Your task to perform on an android device: toggle translation in the chrome app Image 0: 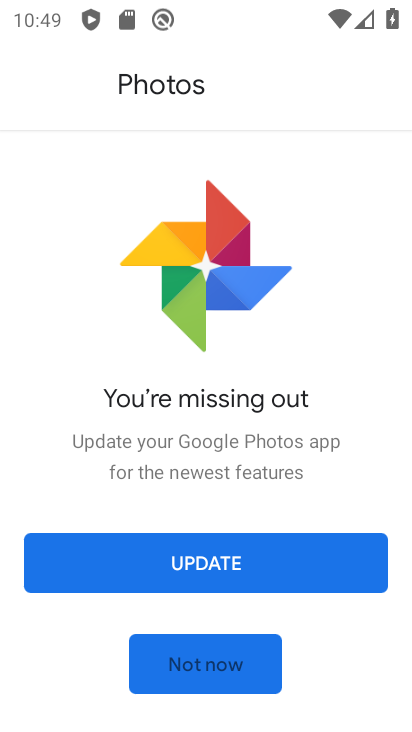
Step 0: press home button
Your task to perform on an android device: toggle translation in the chrome app Image 1: 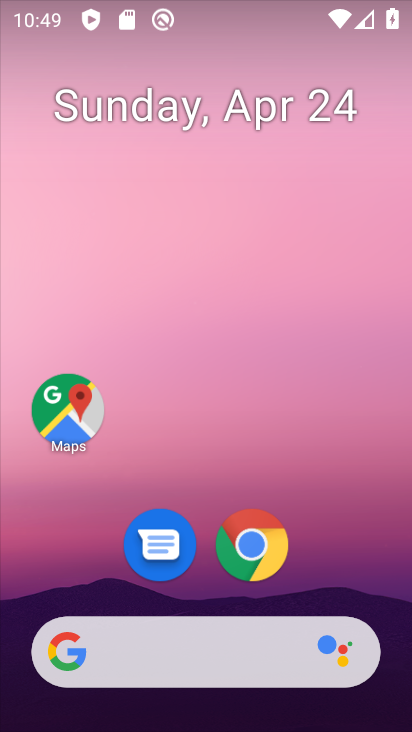
Step 1: drag from (290, 661) to (297, 188)
Your task to perform on an android device: toggle translation in the chrome app Image 2: 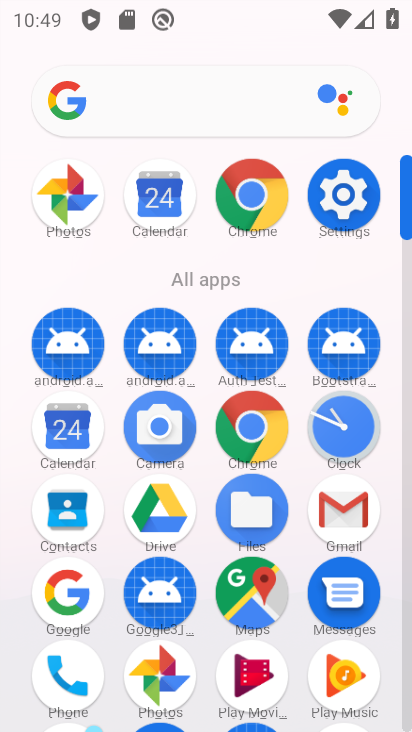
Step 2: click (273, 189)
Your task to perform on an android device: toggle translation in the chrome app Image 3: 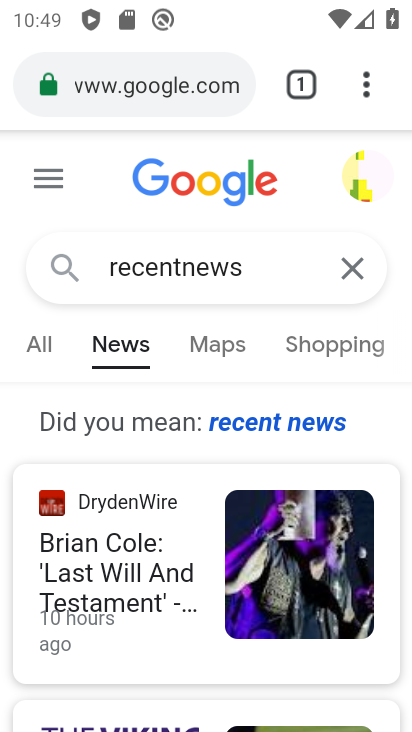
Step 3: click (372, 76)
Your task to perform on an android device: toggle translation in the chrome app Image 4: 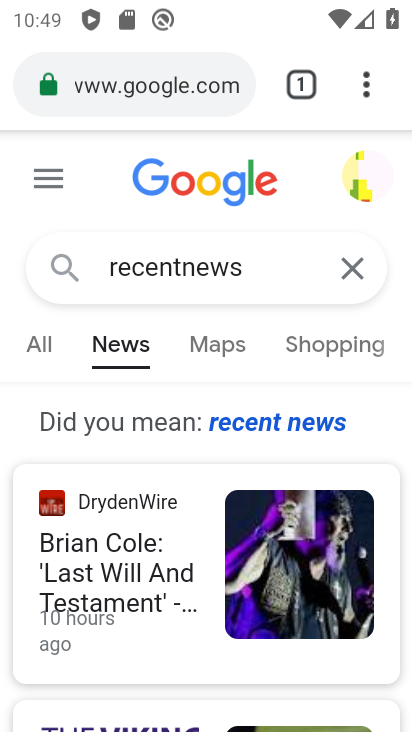
Step 4: click (368, 91)
Your task to perform on an android device: toggle translation in the chrome app Image 5: 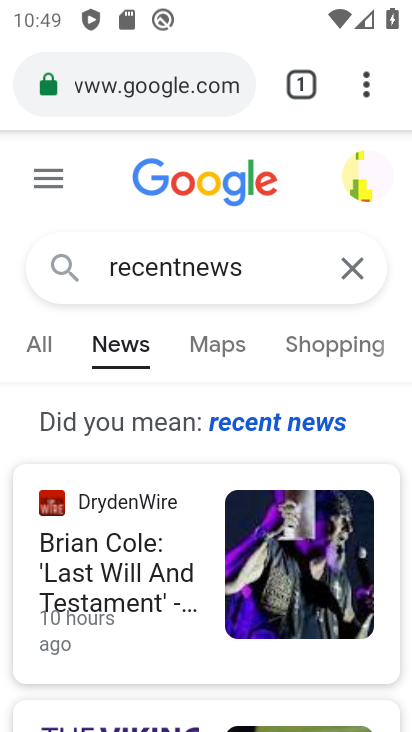
Step 5: click (358, 96)
Your task to perform on an android device: toggle translation in the chrome app Image 6: 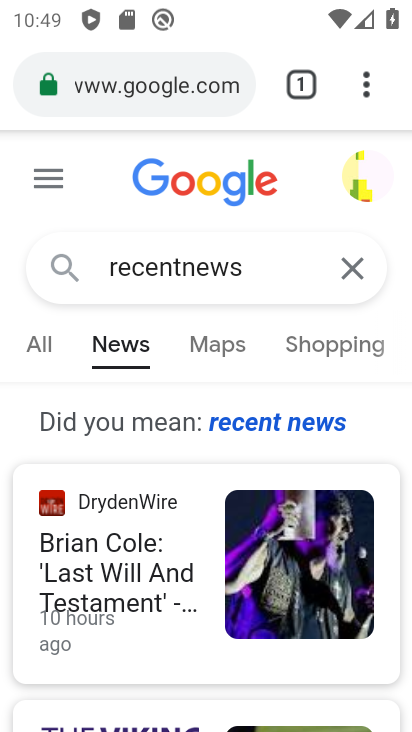
Step 6: click (359, 103)
Your task to perform on an android device: toggle translation in the chrome app Image 7: 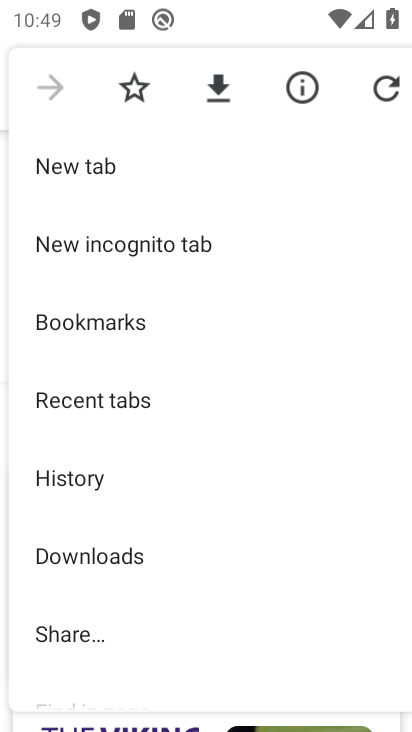
Step 7: drag from (91, 656) to (187, 394)
Your task to perform on an android device: toggle translation in the chrome app Image 8: 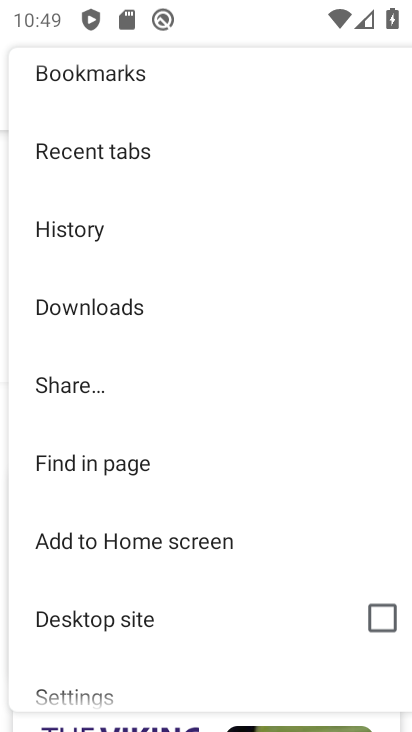
Step 8: click (83, 674)
Your task to perform on an android device: toggle translation in the chrome app Image 9: 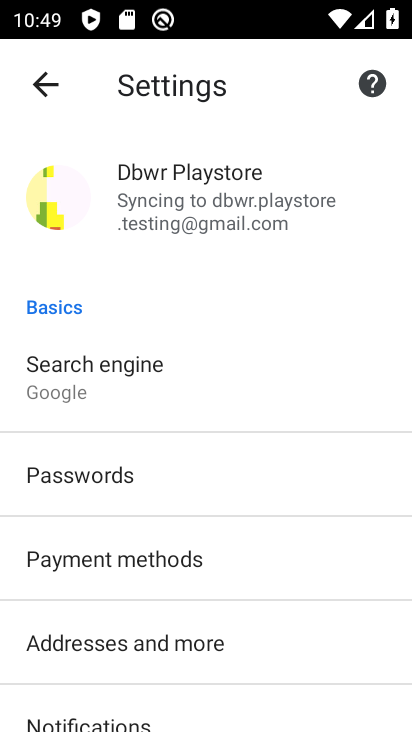
Step 9: drag from (195, 611) to (291, 138)
Your task to perform on an android device: toggle translation in the chrome app Image 10: 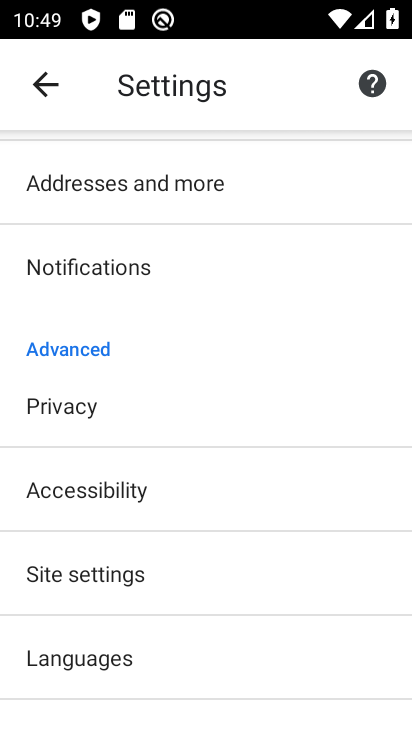
Step 10: click (68, 660)
Your task to perform on an android device: toggle translation in the chrome app Image 11: 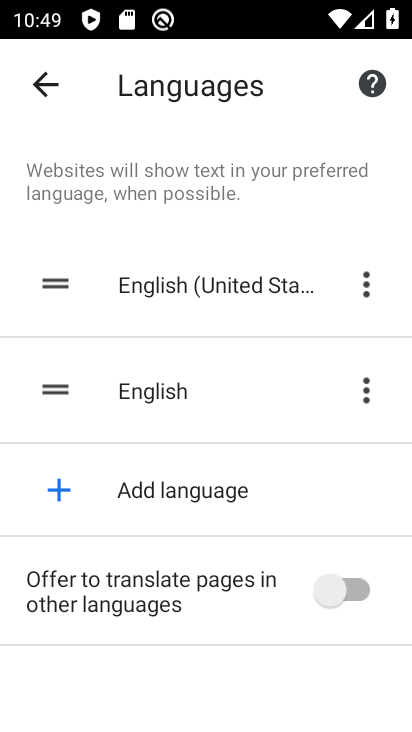
Step 11: click (328, 587)
Your task to perform on an android device: toggle translation in the chrome app Image 12: 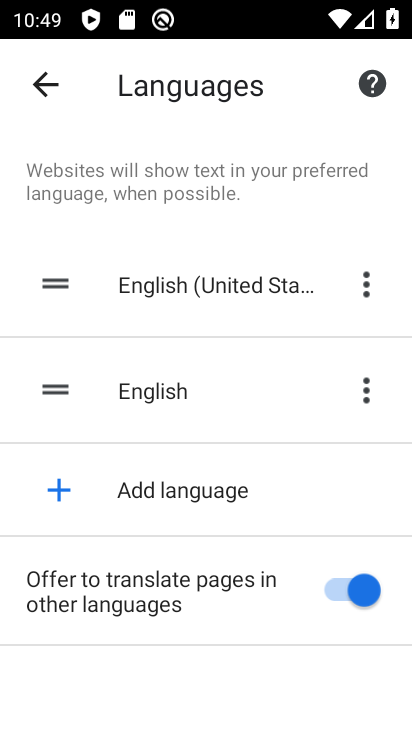
Step 12: task complete